Your task to perform on an android device: set default search engine in the chrome app Image 0: 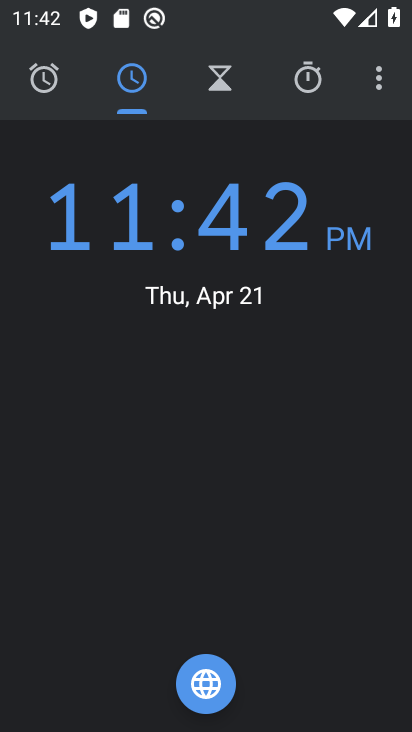
Step 0: press home button
Your task to perform on an android device: set default search engine in the chrome app Image 1: 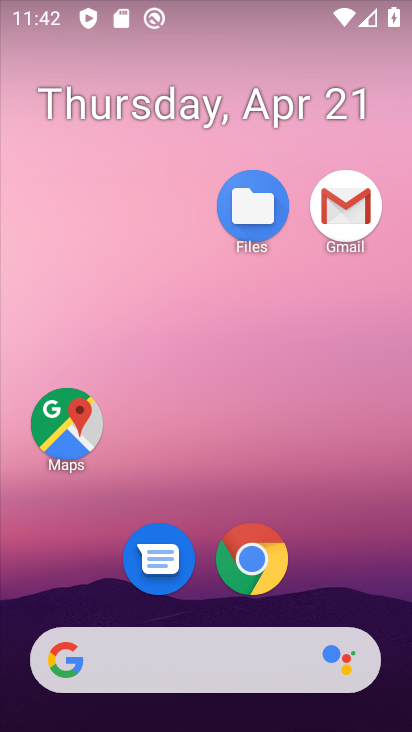
Step 1: click (254, 585)
Your task to perform on an android device: set default search engine in the chrome app Image 2: 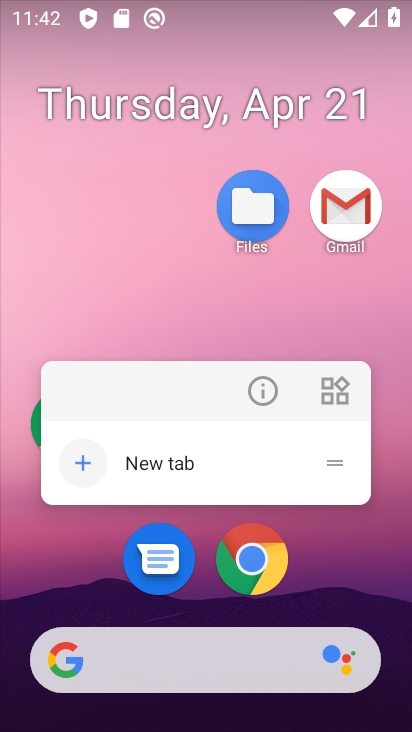
Step 2: click (254, 585)
Your task to perform on an android device: set default search engine in the chrome app Image 3: 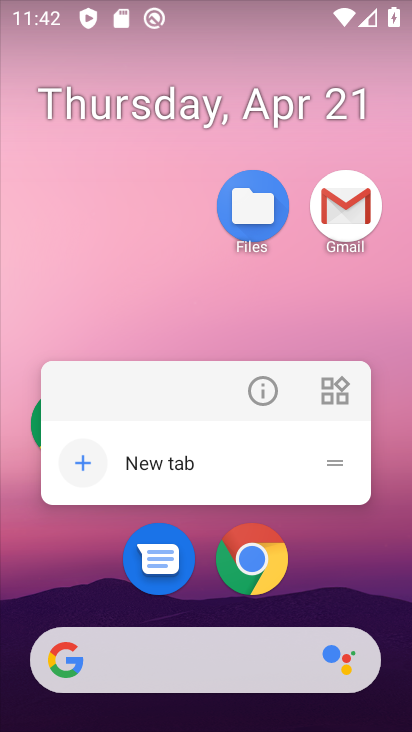
Step 3: click (229, 555)
Your task to perform on an android device: set default search engine in the chrome app Image 4: 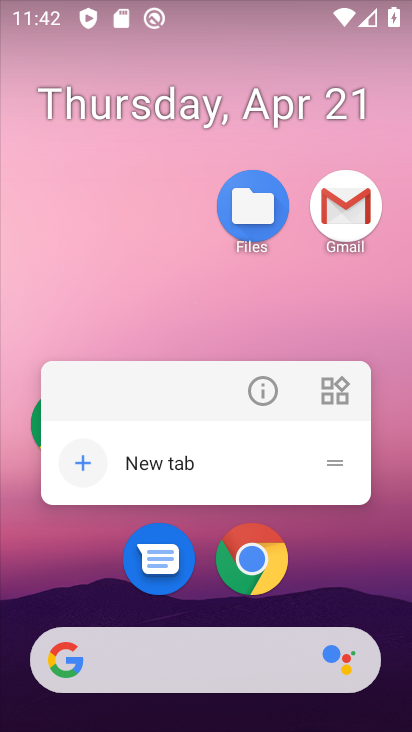
Step 4: click (229, 555)
Your task to perform on an android device: set default search engine in the chrome app Image 5: 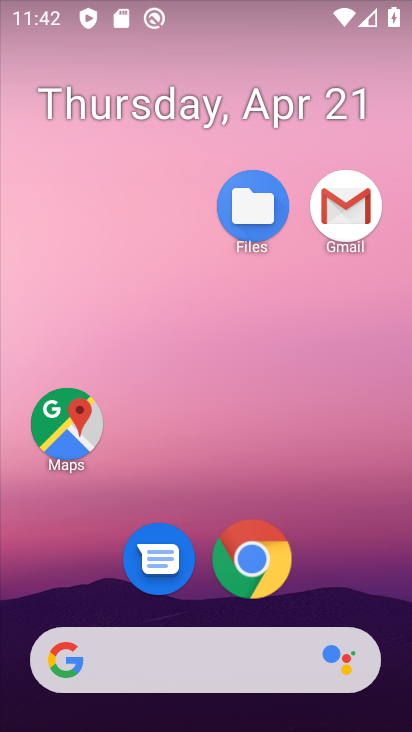
Step 5: click (229, 555)
Your task to perform on an android device: set default search engine in the chrome app Image 6: 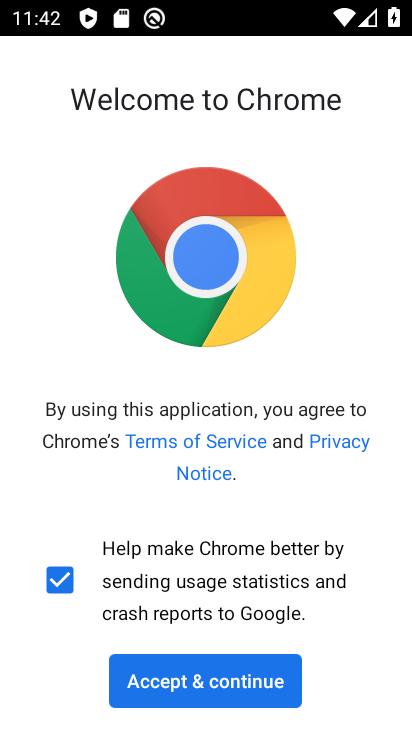
Step 6: click (198, 669)
Your task to perform on an android device: set default search engine in the chrome app Image 7: 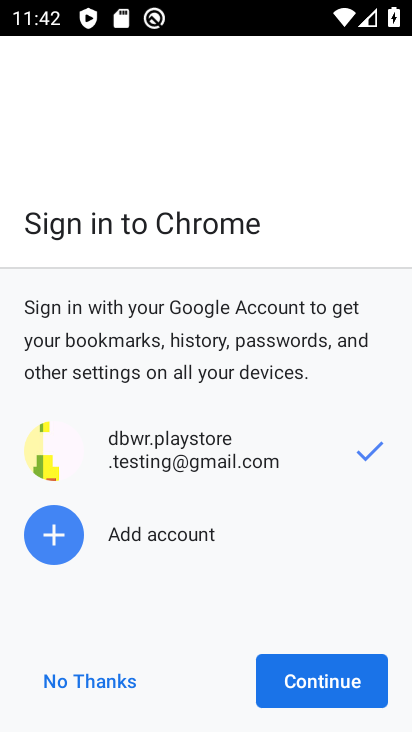
Step 7: click (134, 677)
Your task to perform on an android device: set default search engine in the chrome app Image 8: 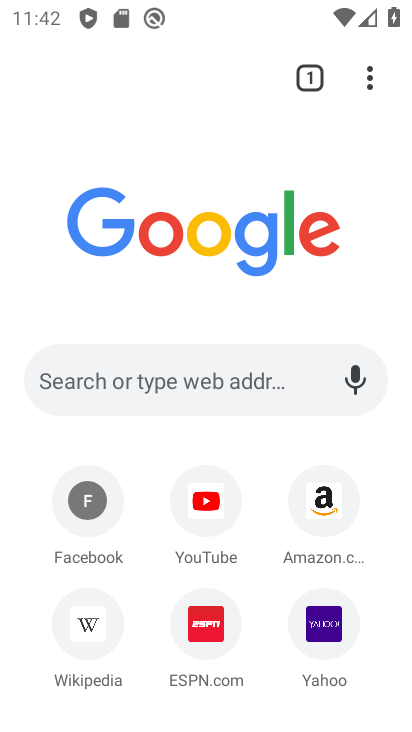
Step 8: click (371, 87)
Your task to perform on an android device: set default search engine in the chrome app Image 9: 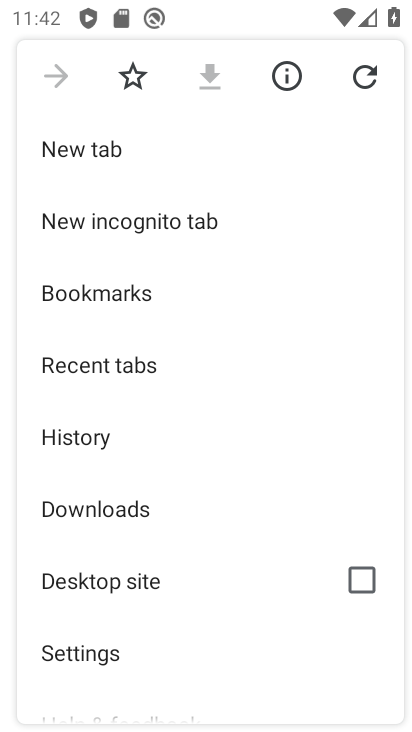
Step 9: click (65, 652)
Your task to perform on an android device: set default search engine in the chrome app Image 10: 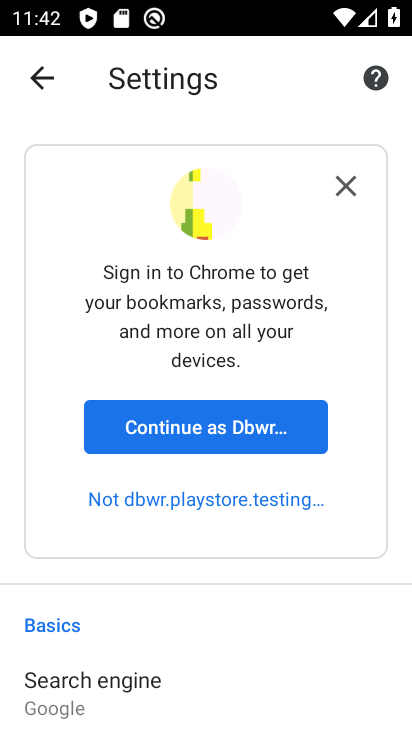
Step 10: drag from (87, 633) to (121, 329)
Your task to perform on an android device: set default search engine in the chrome app Image 11: 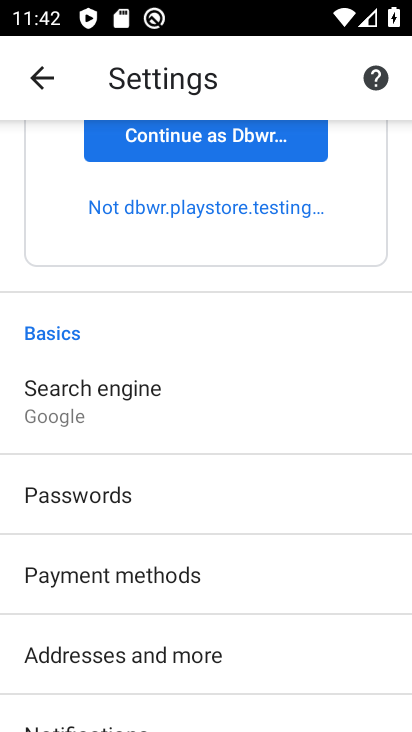
Step 11: click (132, 417)
Your task to perform on an android device: set default search engine in the chrome app Image 12: 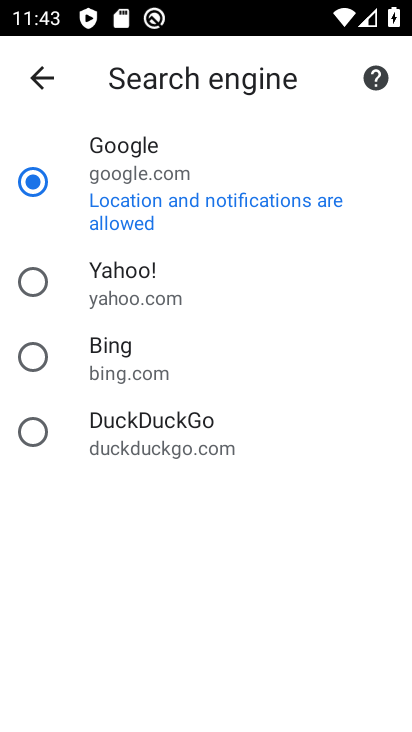
Step 12: task complete